Your task to perform on an android device: delete the emails in spam in the gmail app Image 0: 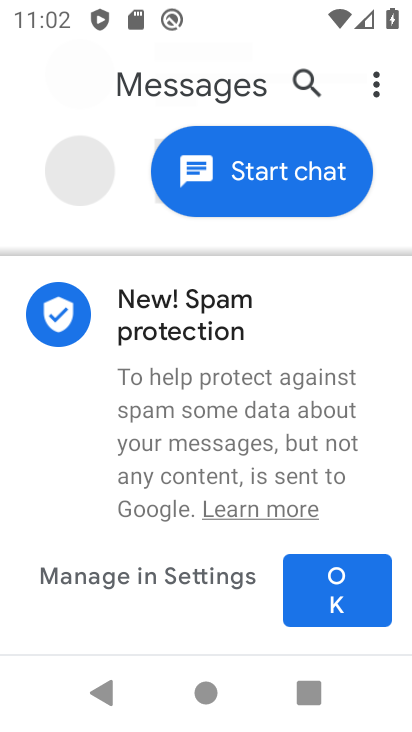
Step 0: press home button
Your task to perform on an android device: delete the emails in spam in the gmail app Image 1: 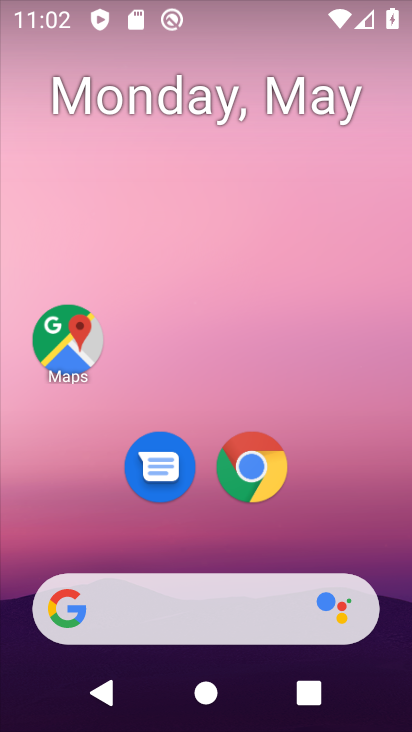
Step 1: drag from (350, 525) to (272, 65)
Your task to perform on an android device: delete the emails in spam in the gmail app Image 2: 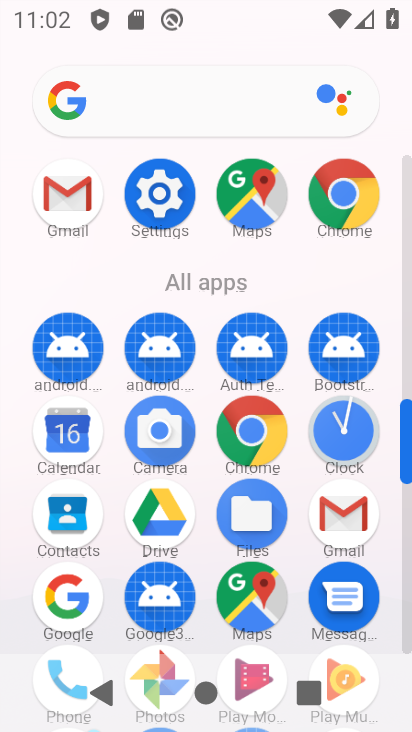
Step 2: click (45, 197)
Your task to perform on an android device: delete the emails in spam in the gmail app Image 3: 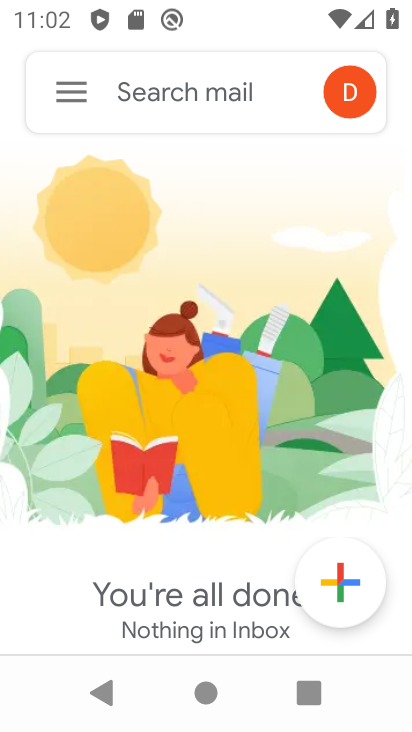
Step 3: click (64, 105)
Your task to perform on an android device: delete the emails in spam in the gmail app Image 4: 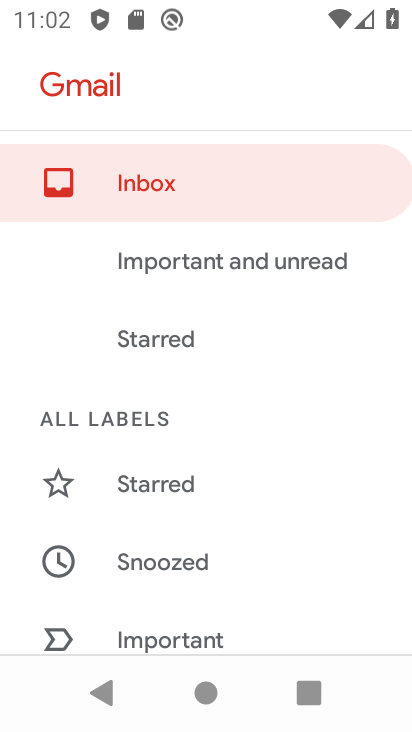
Step 4: drag from (27, 497) to (58, 150)
Your task to perform on an android device: delete the emails in spam in the gmail app Image 5: 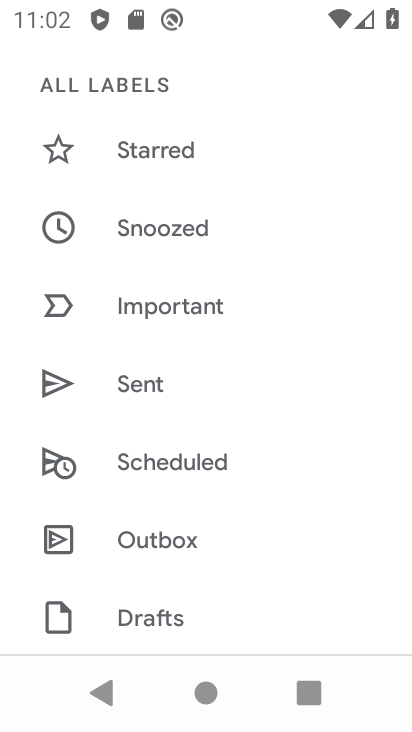
Step 5: drag from (9, 383) to (7, 132)
Your task to perform on an android device: delete the emails in spam in the gmail app Image 6: 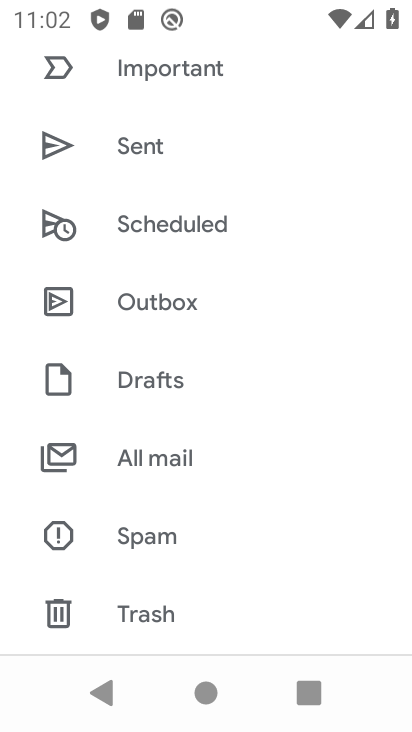
Step 6: click (161, 546)
Your task to perform on an android device: delete the emails in spam in the gmail app Image 7: 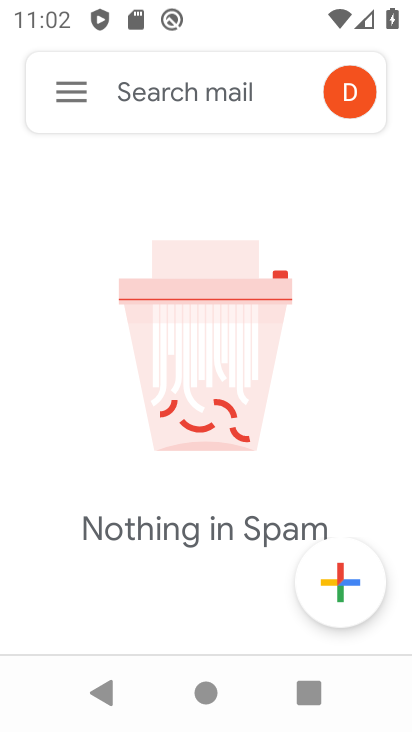
Step 7: task complete